Your task to perform on an android device: Go to Google maps Image 0: 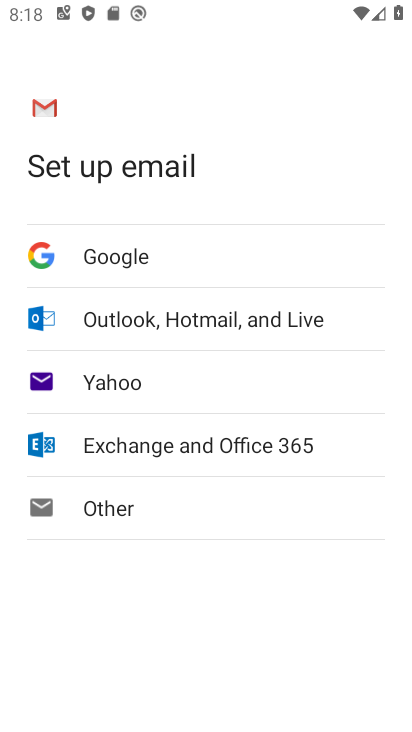
Step 0: press back button
Your task to perform on an android device: Go to Google maps Image 1: 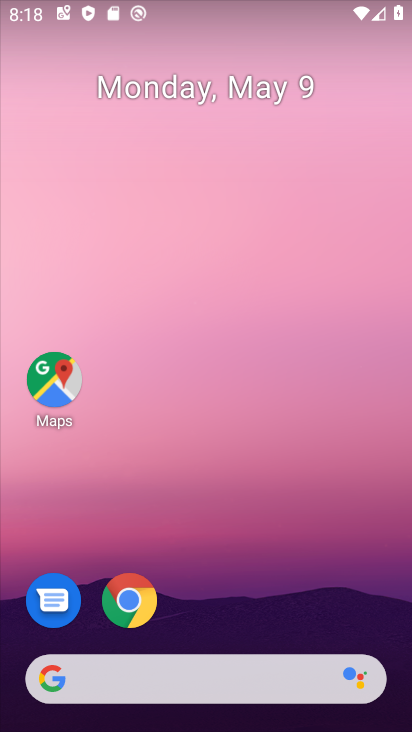
Step 1: drag from (271, 569) to (265, 22)
Your task to perform on an android device: Go to Google maps Image 2: 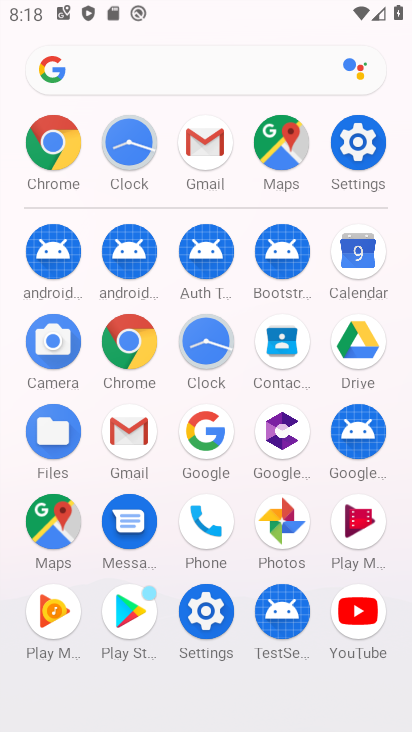
Step 2: click (51, 521)
Your task to perform on an android device: Go to Google maps Image 3: 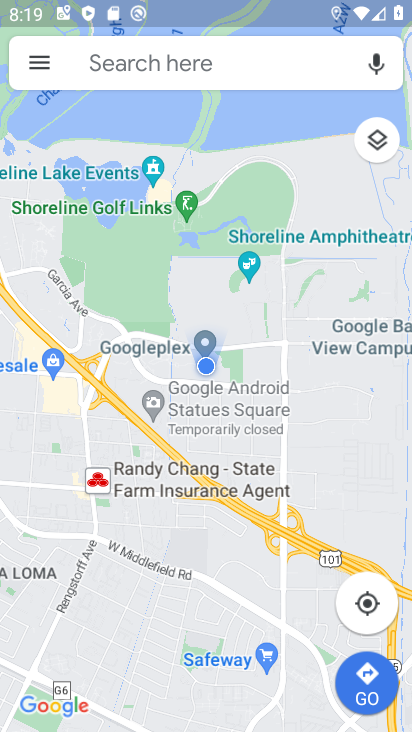
Step 3: task complete